Your task to perform on an android device: delete the emails in spam in the gmail app Image 0: 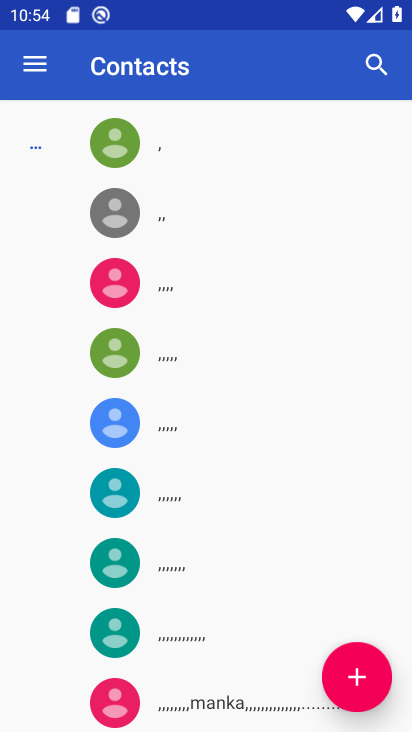
Step 0: press home button
Your task to perform on an android device: delete the emails in spam in the gmail app Image 1: 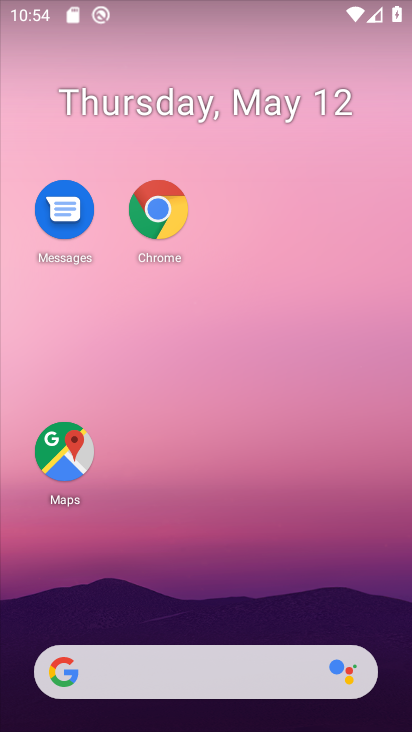
Step 1: drag from (202, 140) to (204, 50)
Your task to perform on an android device: delete the emails in spam in the gmail app Image 2: 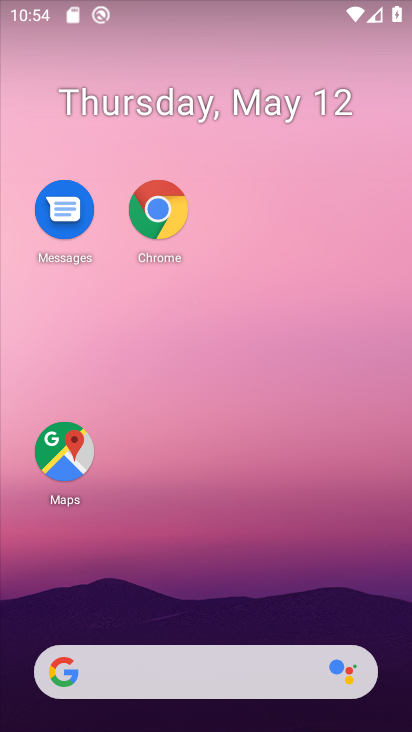
Step 2: drag from (193, 595) to (177, 49)
Your task to perform on an android device: delete the emails in spam in the gmail app Image 3: 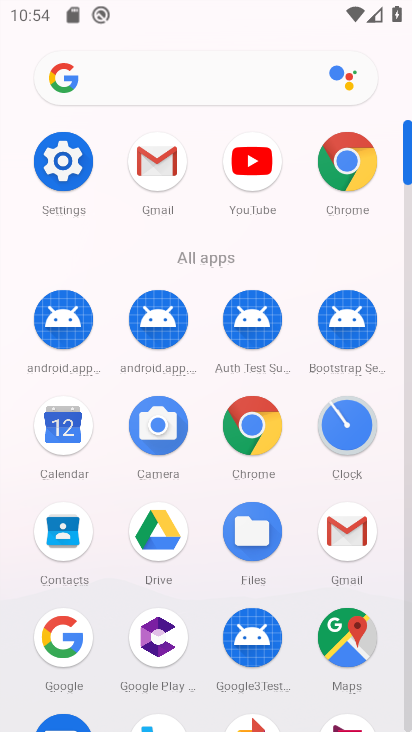
Step 3: click (155, 184)
Your task to perform on an android device: delete the emails in spam in the gmail app Image 4: 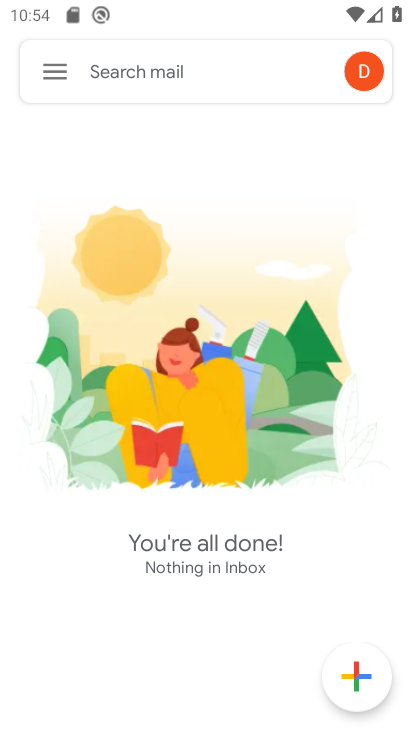
Step 4: click (51, 78)
Your task to perform on an android device: delete the emails in spam in the gmail app Image 5: 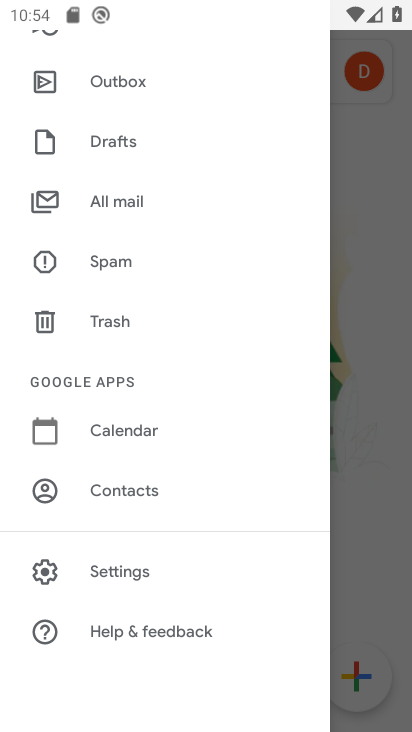
Step 5: click (113, 202)
Your task to perform on an android device: delete the emails in spam in the gmail app Image 6: 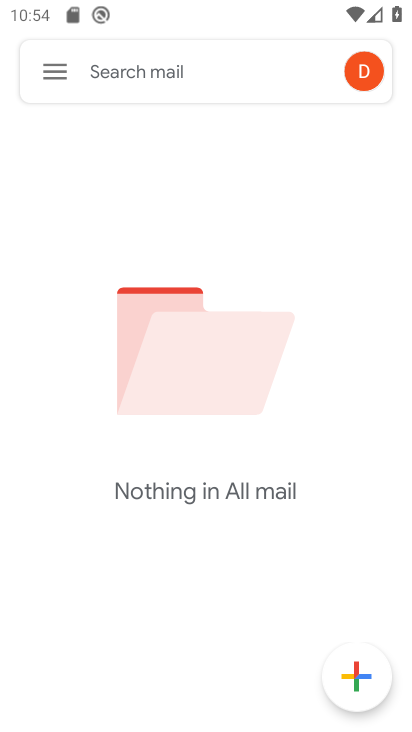
Step 6: click (51, 80)
Your task to perform on an android device: delete the emails in spam in the gmail app Image 7: 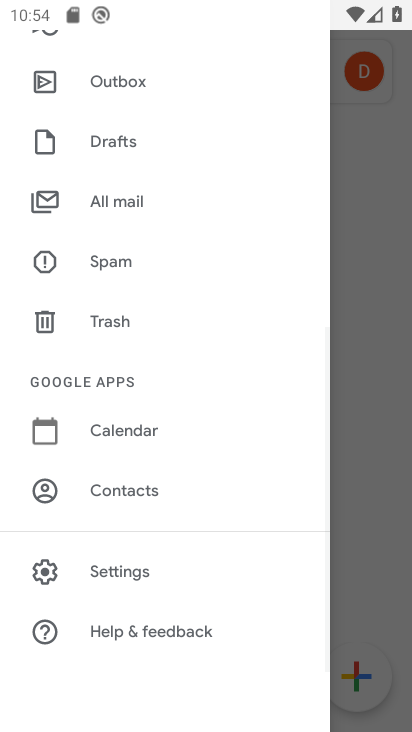
Step 7: click (121, 269)
Your task to perform on an android device: delete the emails in spam in the gmail app Image 8: 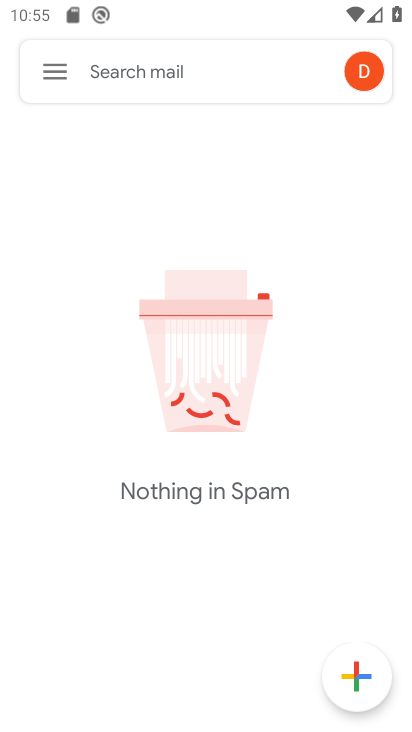
Step 8: task complete